Your task to perform on an android device: Open calendar and show me the fourth week of next month Image 0: 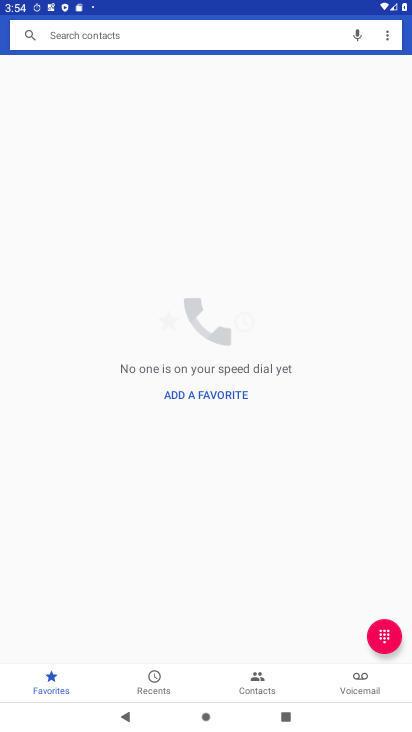
Step 0: press home button
Your task to perform on an android device: Open calendar and show me the fourth week of next month Image 1: 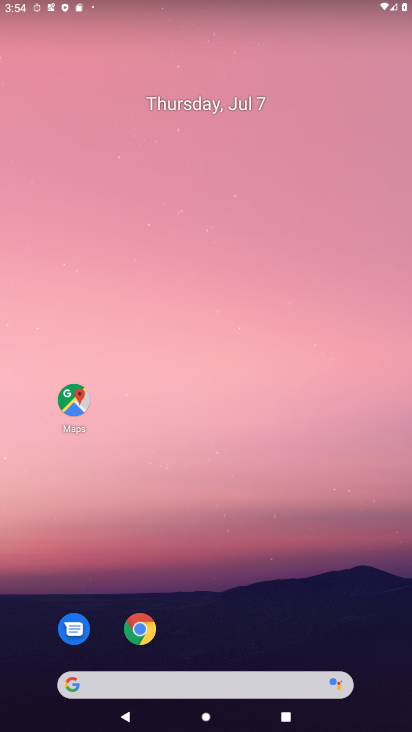
Step 1: drag from (196, 513) to (199, 124)
Your task to perform on an android device: Open calendar and show me the fourth week of next month Image 2: 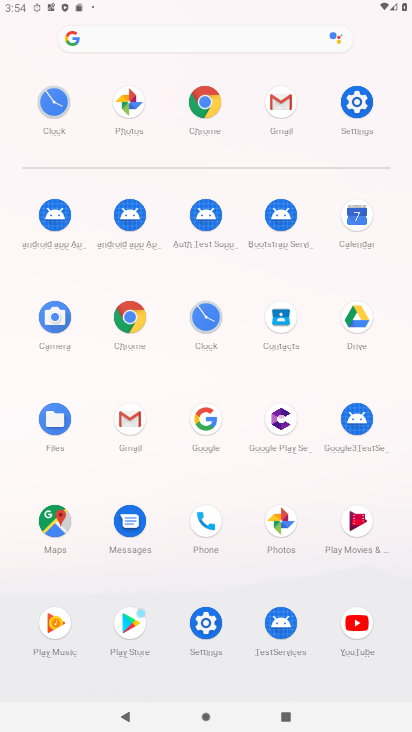
Step 2: click (351, 233)
Your task to perform on an android device: Open calendar and show me the fourth week of next month Image 3: 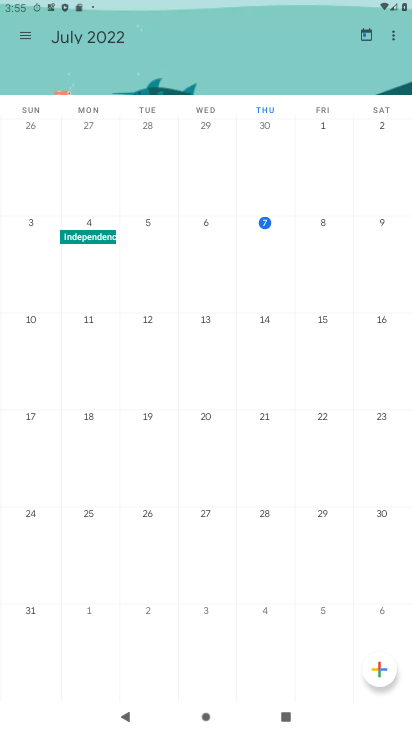
Step 3: task complete